Your task to perform on an android device: find photos in the google photos app Image 0: 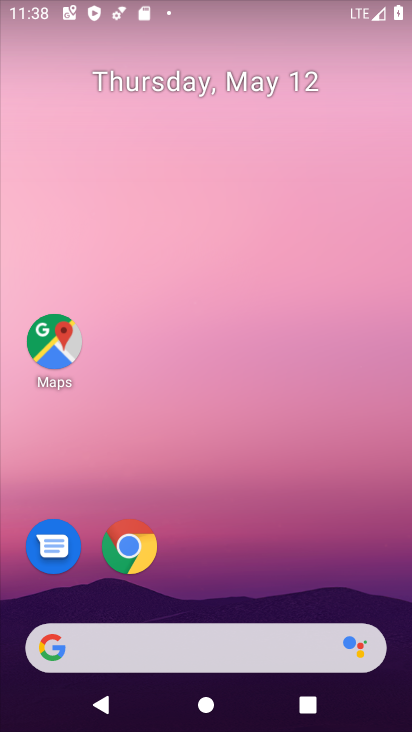
Step 0: drag from (288, 541) to (311, 64)
Your task to perform on an android device: find photos in the google photos app Image 1: 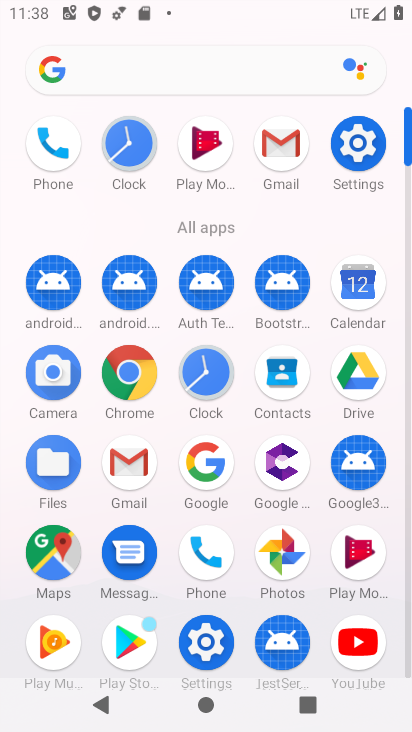
Step 1: click (275, 562)
Your task to perform on an android device: find photos in the google photos app Image 2: 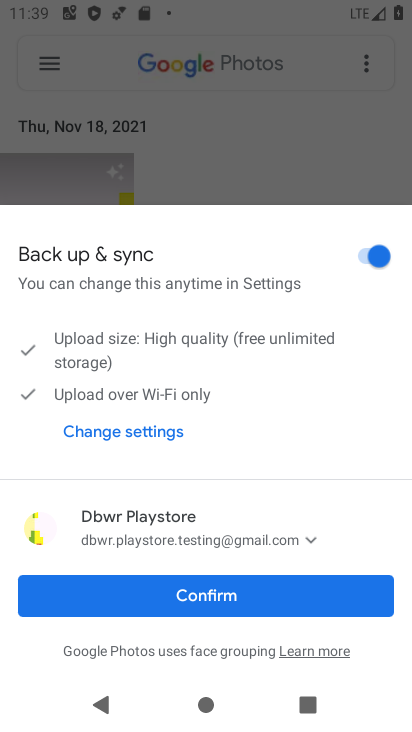
Step 2: click (262, 587)
Your task to perform on an android device: find photos in the google photos app Image 3: 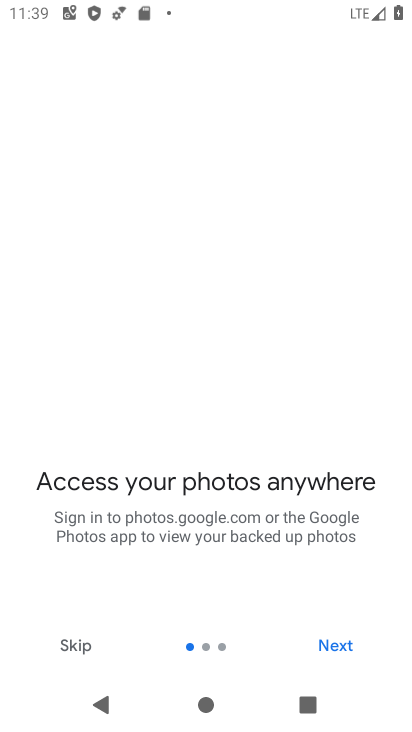
Step 3: click (348, 648)
Your task to perform on an android device: find photos in the google photos app Image 4: 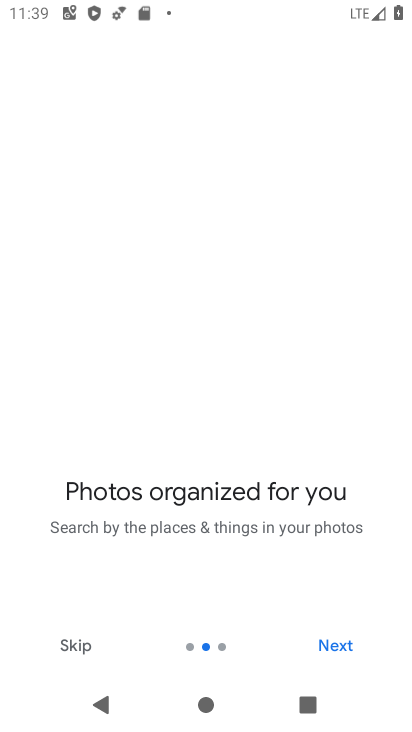
Step 4: click (348, 648)
Your task to perform on an android device: find photos in the google photos app Image 5: 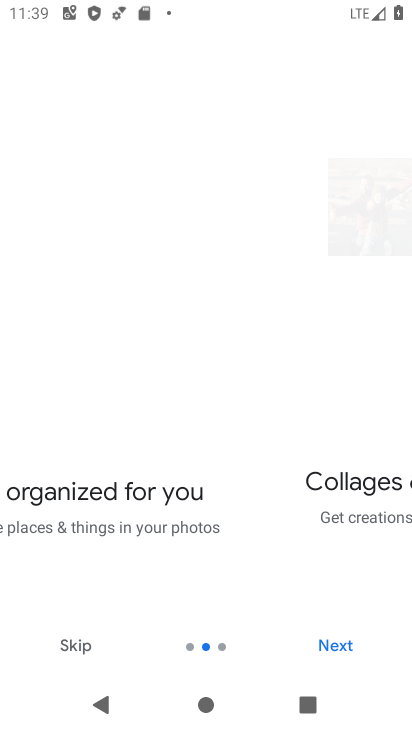
Step 5: click (348, 648)
Your task to perform on an android device: find photos in the google photos app Image 6: 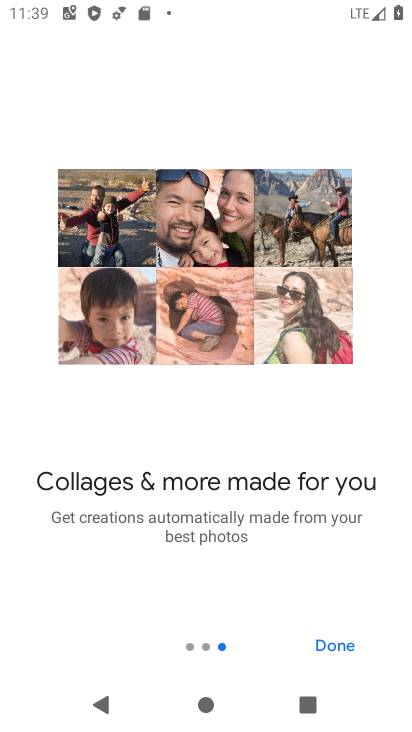
Step 6: click (348, 648)
Your task to perform on an android device: find photos in the google photos app Image 7: 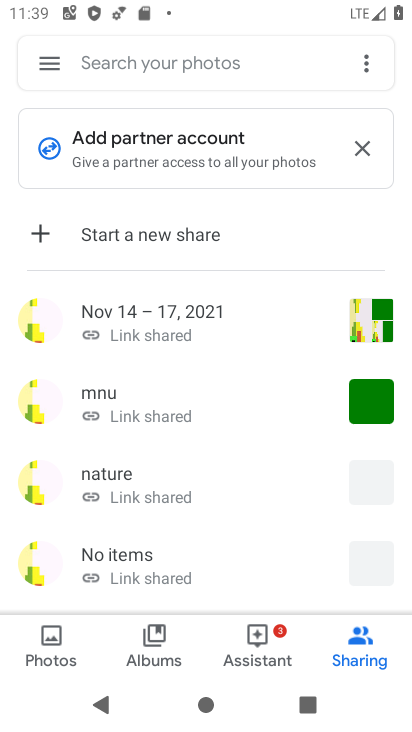
Step 7: click (61, 641)
Your task to perform on an android device: find photos in the google photos app Image 8: 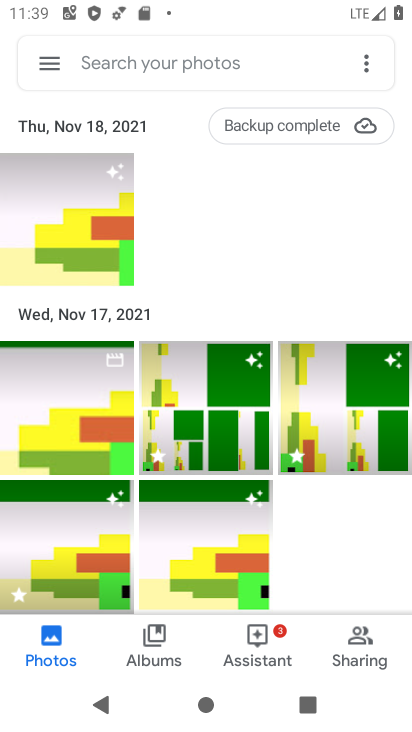
Step 8: task complete